Your task to perform on an android device: toggle sleep mode Image 0: 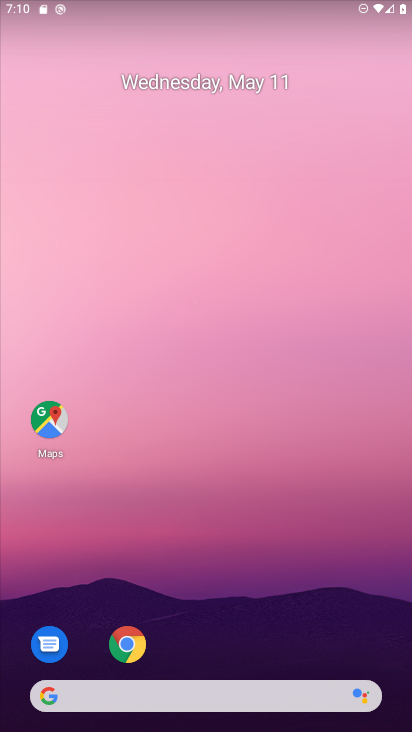
Step 0: drag from (229, 564) to (127, 19)
Your task to perform on an android device: toggle sleep mode Image 1: 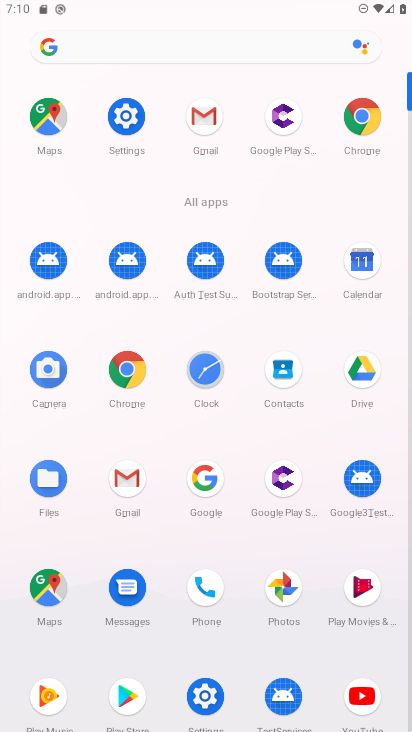
Step 1: click (131, 115)
Your task to perform on an android device: toggle sleep mode Image 2: 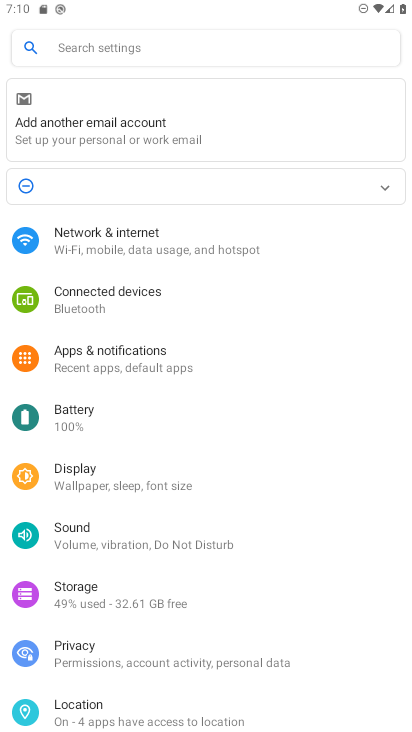
Step 2: click (75, 472)
Your task to perform on an android device: toggle sleep mode Image 3: 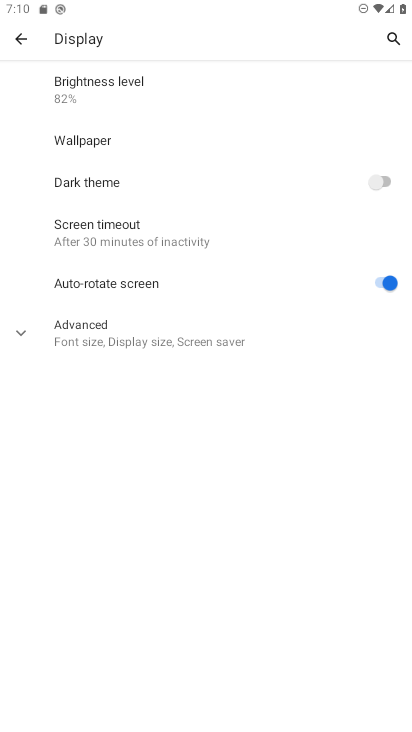
Step 3: task complete